Your task to perform on an android device: Search for rayovac triple a on bestbuy.com, select the first entry, add it to the cart, then select checkout. Image 0: 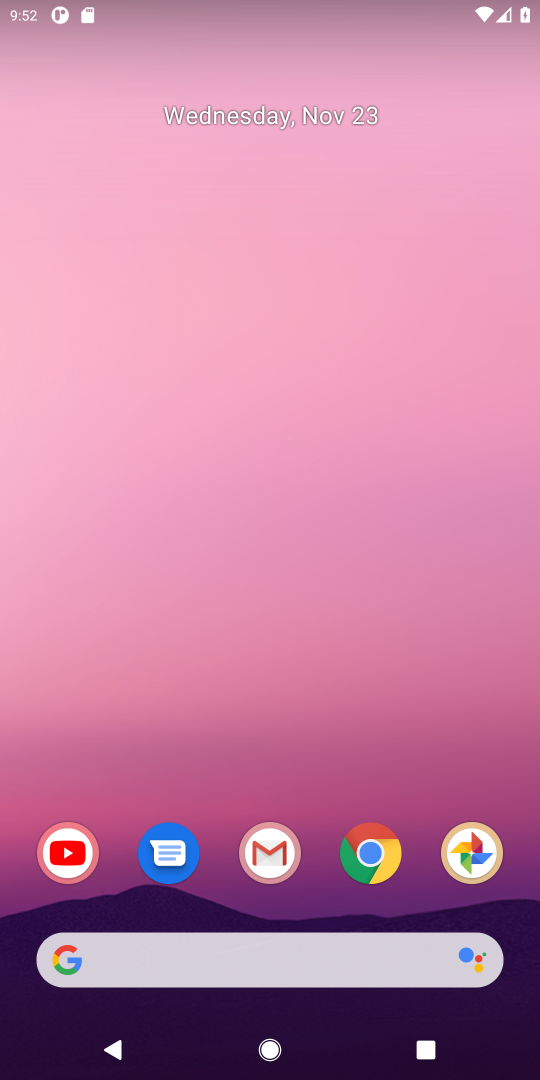
Step 0: click (377, 860)
Your task to perform on an android device: Search for rayovac triple a on bestbuy.com, select the first entry, add it to the cart, then select checkout. Image 1: 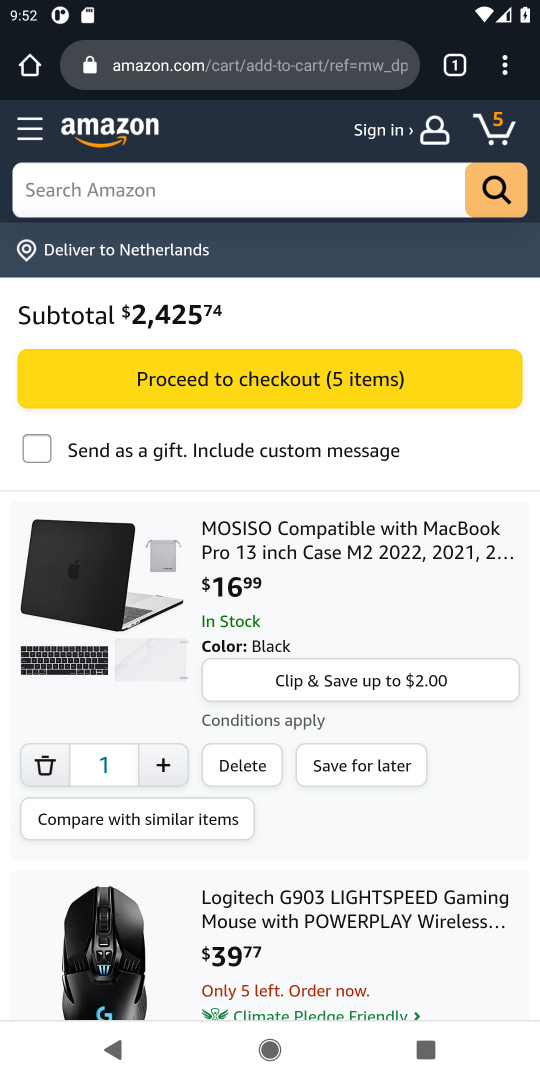
Step 1: click (231, 71)
Your task to perform on an android device: Search for rayovac triple a on bestbuy.com, select the first entry, add it to the cart, then select checkout. Image 2: 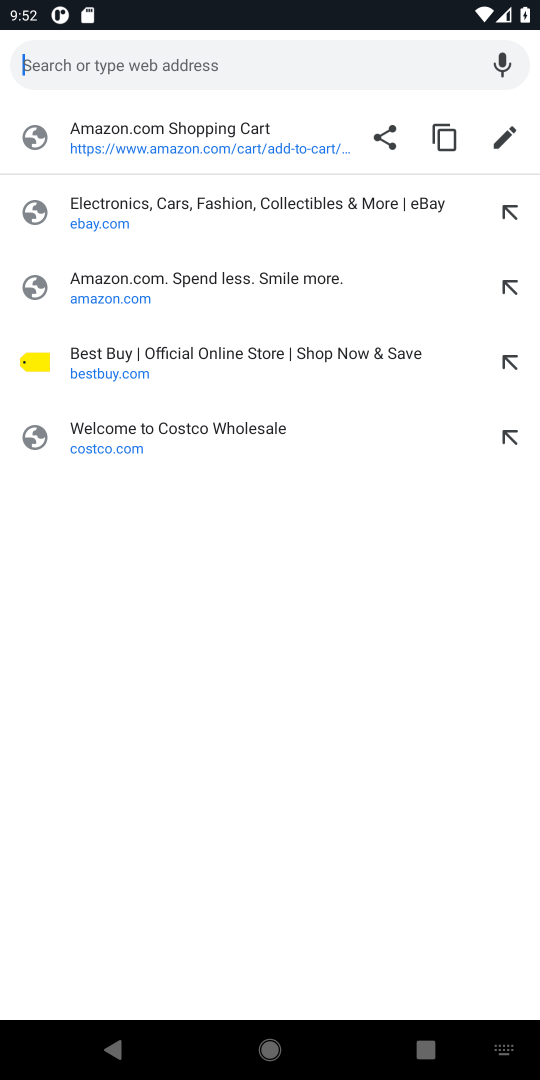
Step 2: click (92, 359)
Your task to perform on an android device: Search for rayovac triple a on bestbuy.com, select the first entry, add it to the cart, then select checkout. Image 3: 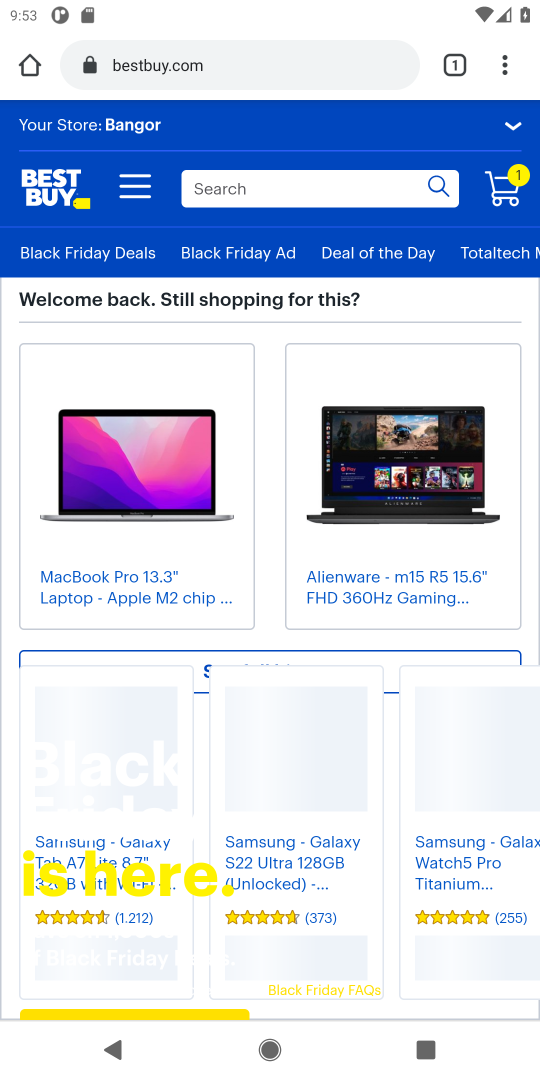
Step 3: click (237, 196)
Your task to perform on an android device: Search for rayovac triple a on bestbuy.com, select the first entry, add it to the cart, then select checkout. Image 4: 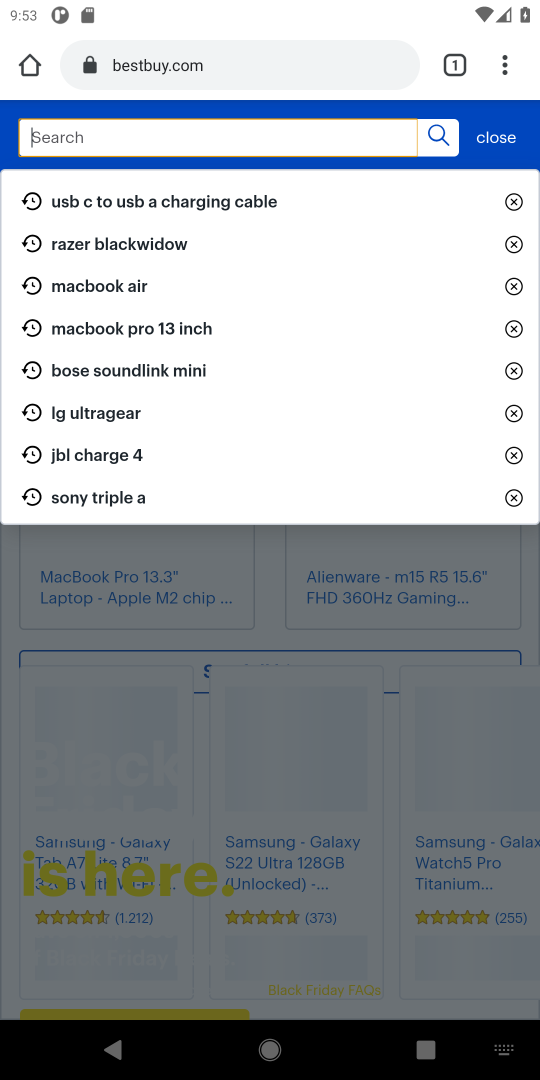
Step 4: type "rayovac triple a"
Your task to perform on an android device: Search for rayovac triple a on bestbuy.com, select the first entry, add it to the cart, then select checkout. Image 5: 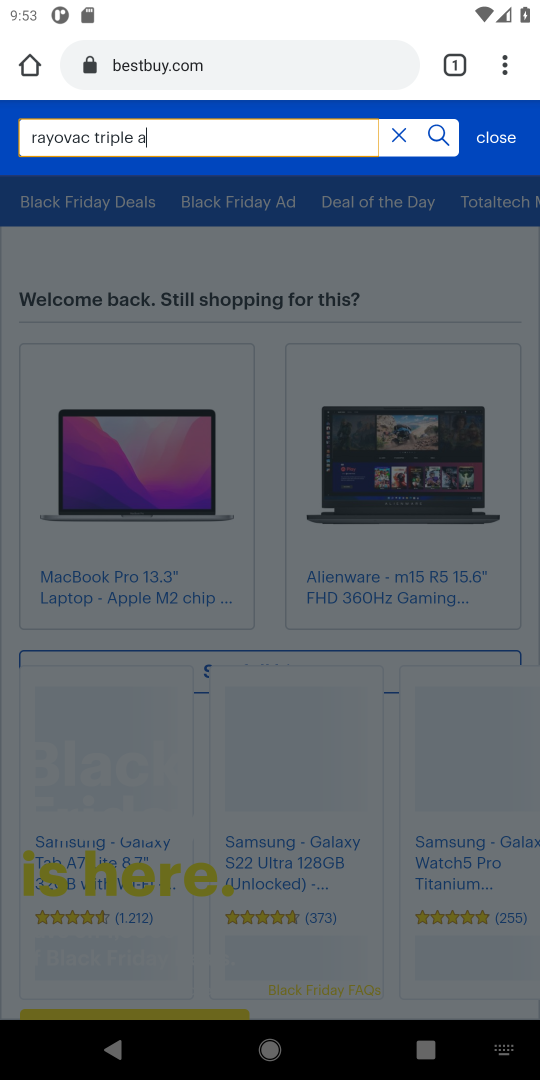
Step 5: click (430, 139)
Your task to perform on an android device: Search for rayovac triple a on bestbuy.com, select the first entry, add it to the cart, then select checkout. Image 6: 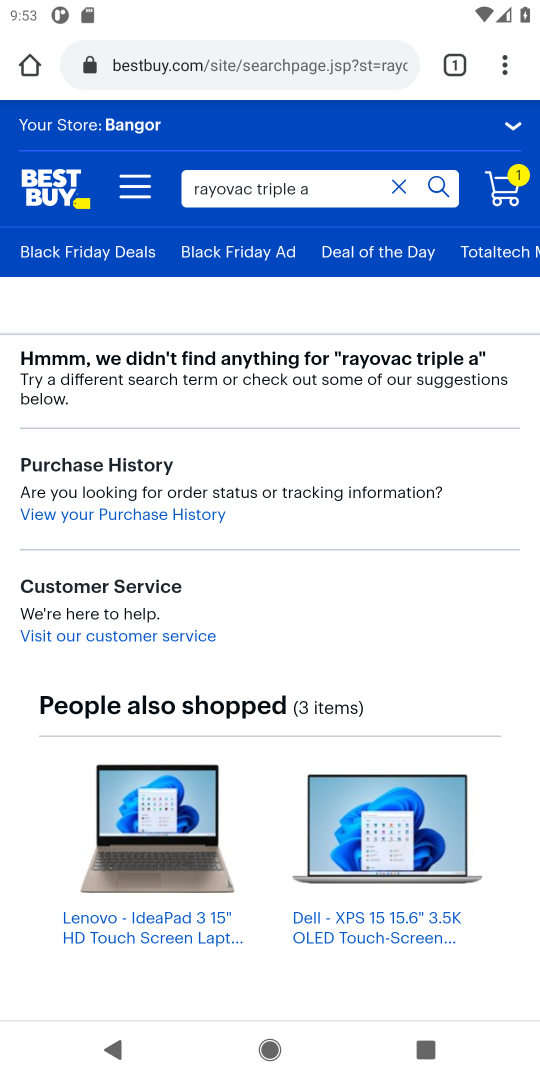
Step 6: task complete